Your task to perform on an android device: snooze an email in the gmail app Image 0: 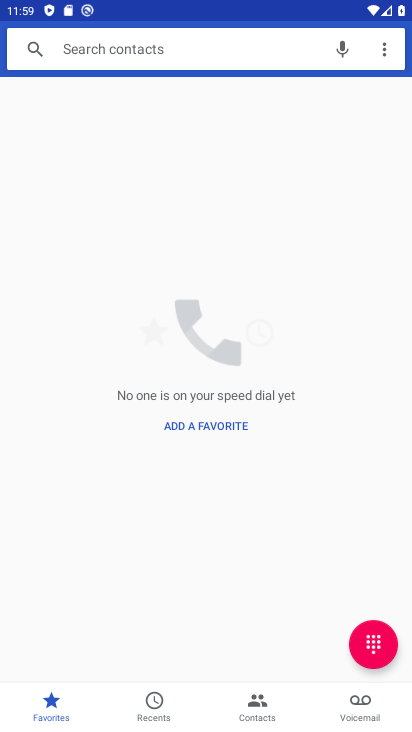
Step 0: press home button
Your task to perform on an android device: snooze an email in the gmail app Image 1: 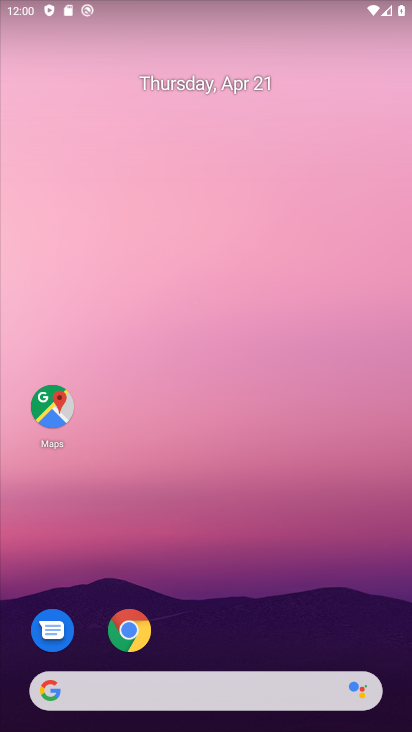
Step 1: drag from (251, 597) to (214, 155)
Your task to perform on an android device: snooze an email in the gmail app Image 2: 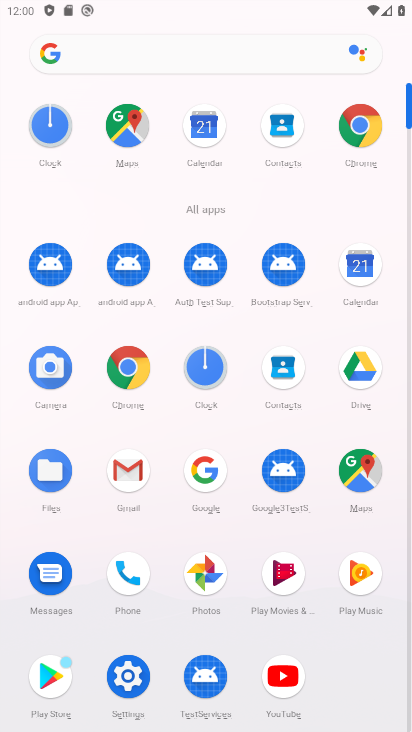
Step 2: click (130, 464)
Your task to perform on an android device: snooze an email in the gmail app Image 3: 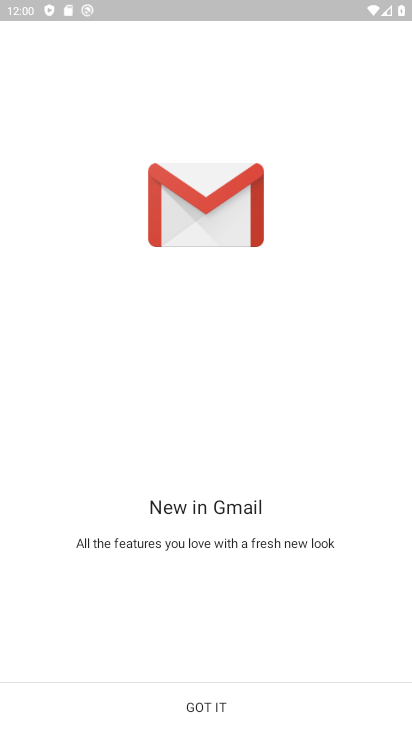
Step 3: click (211, 710)
Your task to perform on an android device: snooze an email in the gmail app Image 4: 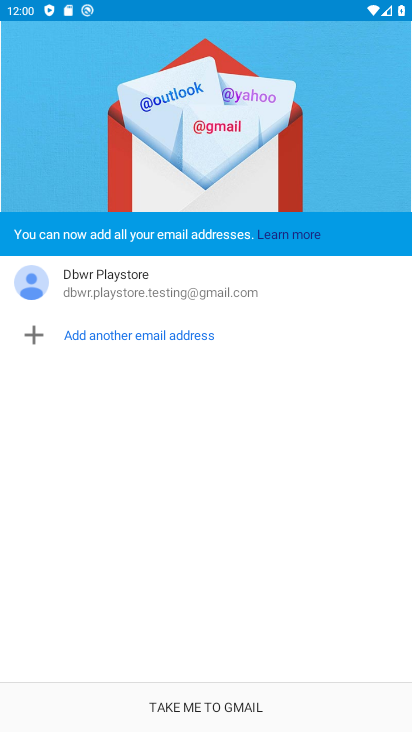
Step 4: click (216, 713)
Your task to perform on an android device: snooze an email in the gmail app Image 5: 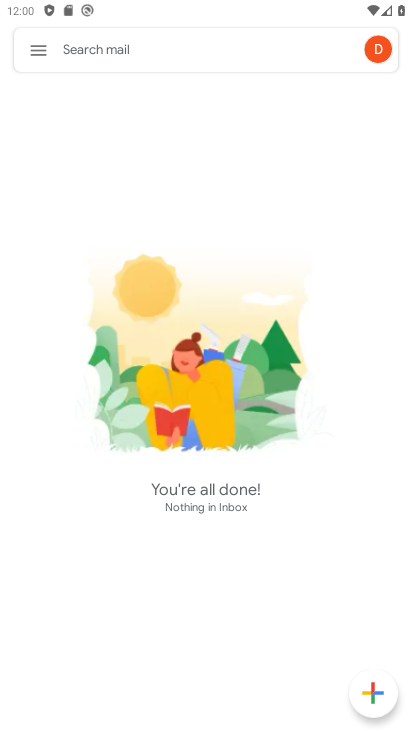
Step 5: click (41, 56)
Your task to perform on an android device: snooze an email in the gmail app Image 6: 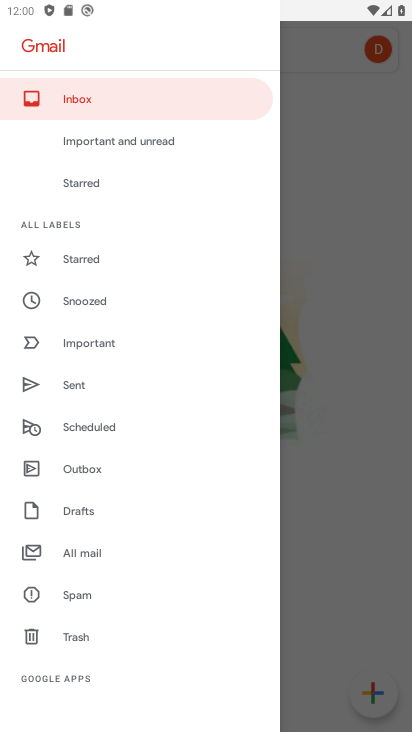
Step 6: click (142, 300)
Your task to perform on an android device: snooze an email in the gmail app Image 7: 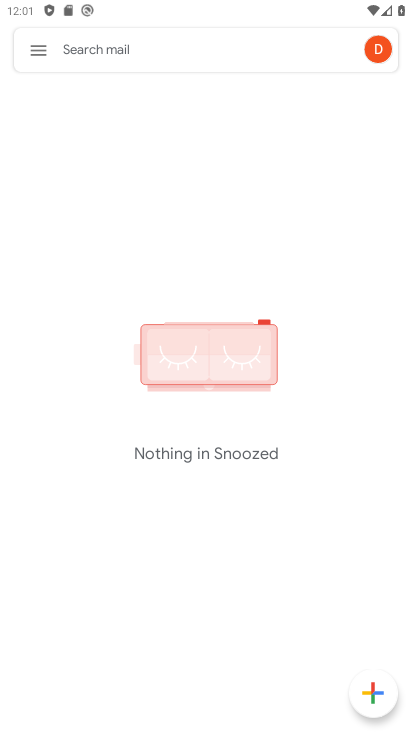
Step 7: click (43, 42)
Your task to perform on an android device: snooze an email in the gmail app Image 8: 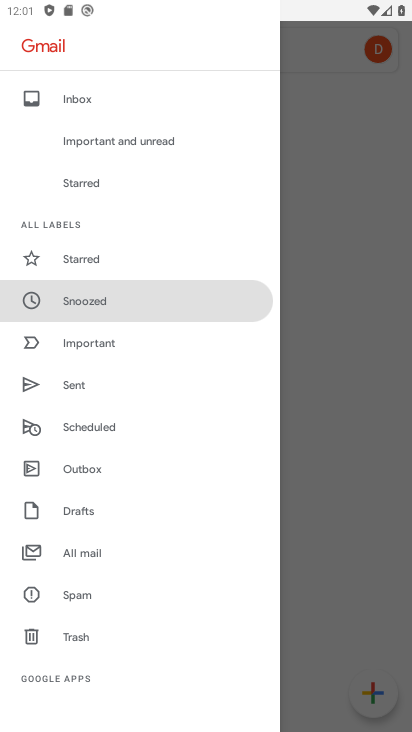
Step 8: click (178, 554)
Your task to perform on an android device: snooze an email in the gmail app Image 9: 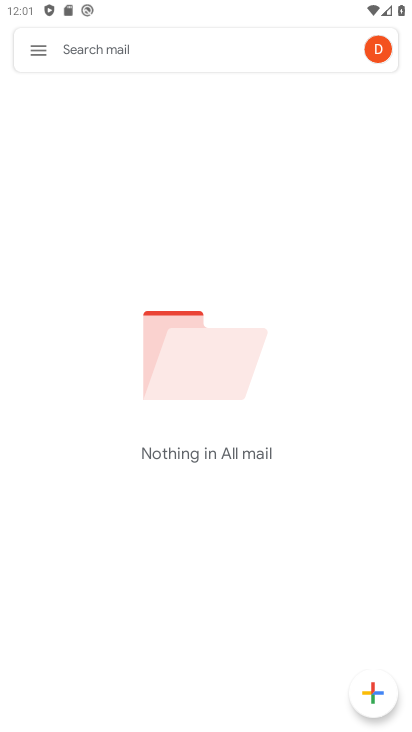
Step 9: task complete